Your task to perform on an android device: turn on airplane mode Image 0: 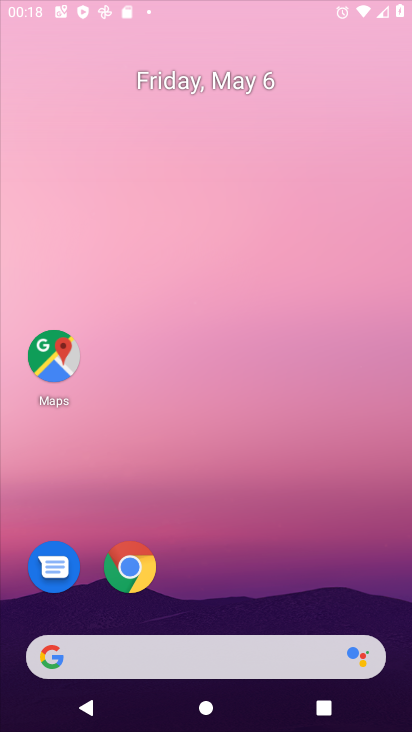
Step 0: click (177, 645)
Your task to perform on an android device: turn on airplane mode Image 1: 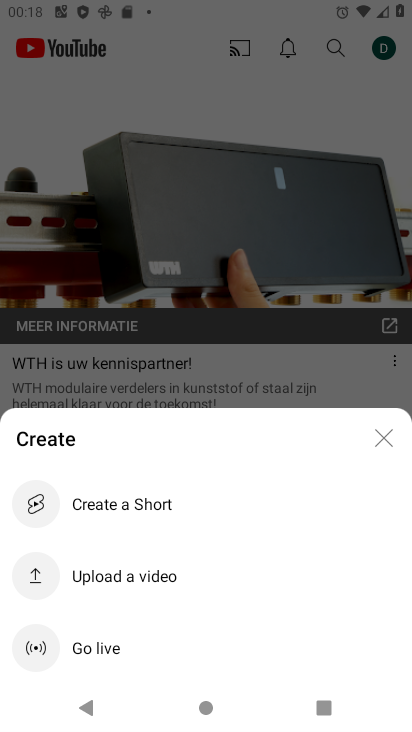
Step 1: press home button
Your task to perform on an android device: turn on airplane mode Image 2: 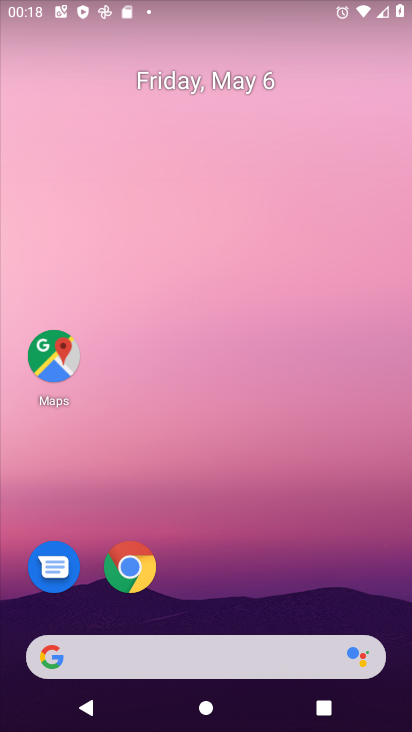
Step 2: drag from (195, 564) to (192, 85)
Your task to perform on an android device: turn on airplane mode Image 3: 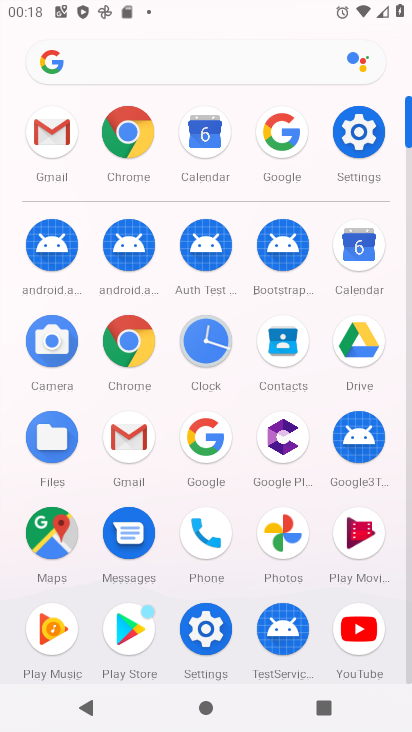
Step 3: click (351, 119)
Your task to perform on an android device: turn on airplane mode Image 4: 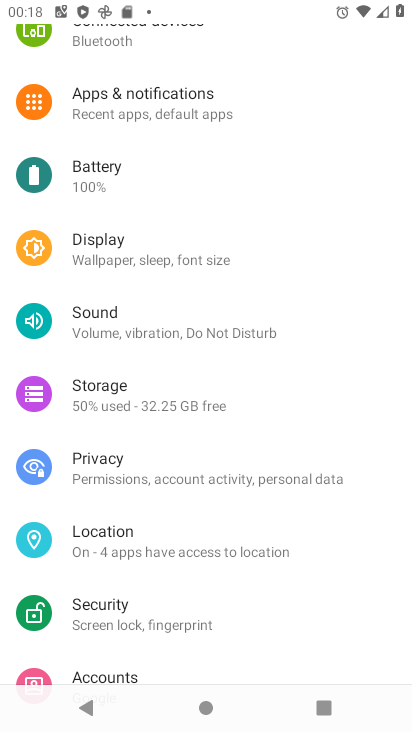
Step 4: drag from (251, 105) to (261, 486)
Your task to perform on an android device: turn on airplane mode Image 5: 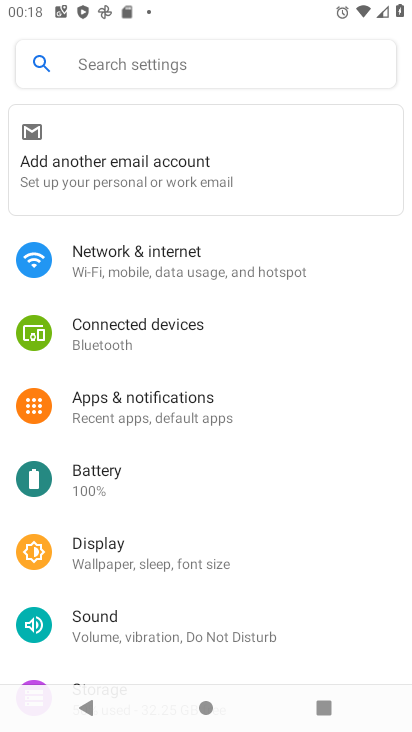
Step 5: click (197, 279)
Your task to perform on an android device: turn on airplane mode Image 6: 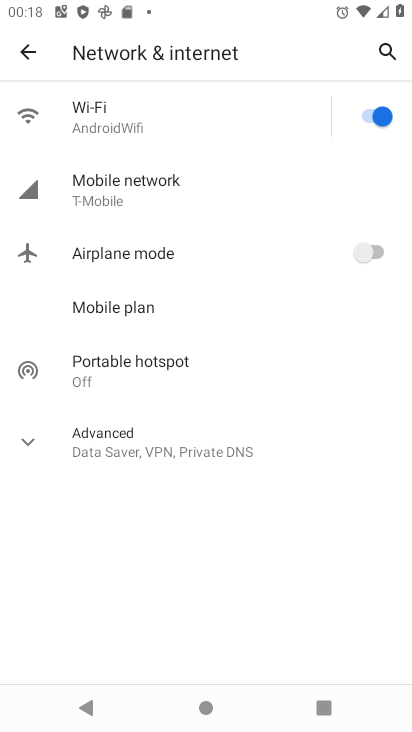
Step 6: click (376, 252)
Your task to perform on an android device: turn on airplane mode Image 7: 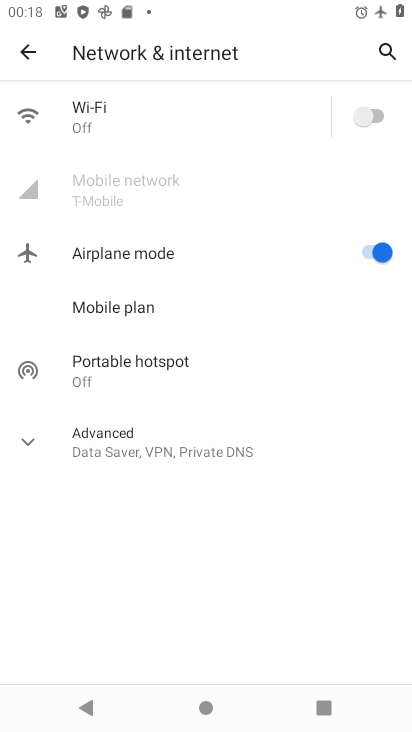
Step 7: task complete